Your task to perform on an android device: Go to Reddit.com Image 0: 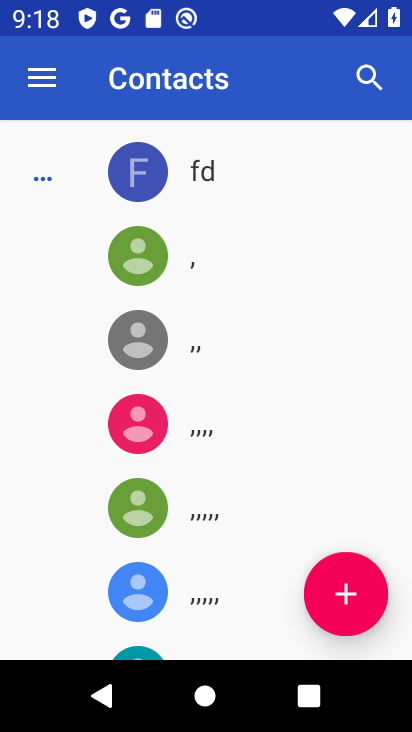
Step 0: press home button
Your task to perform on an android device: Go to Reddit.com Image 1: 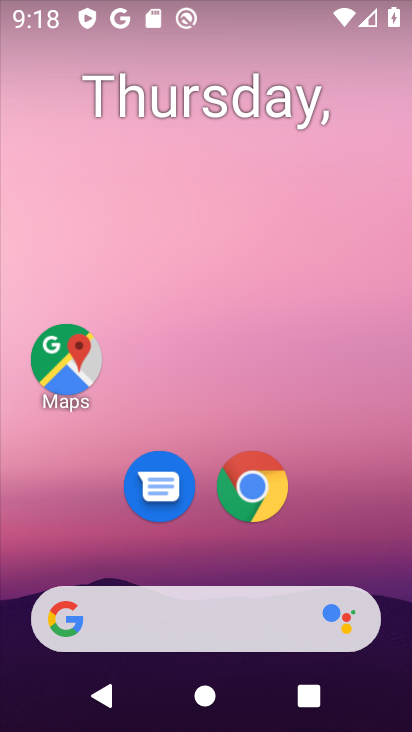
Step 1: click (261, 475)
Your task to perform on an android device: Go to Reddit.com Image 2: 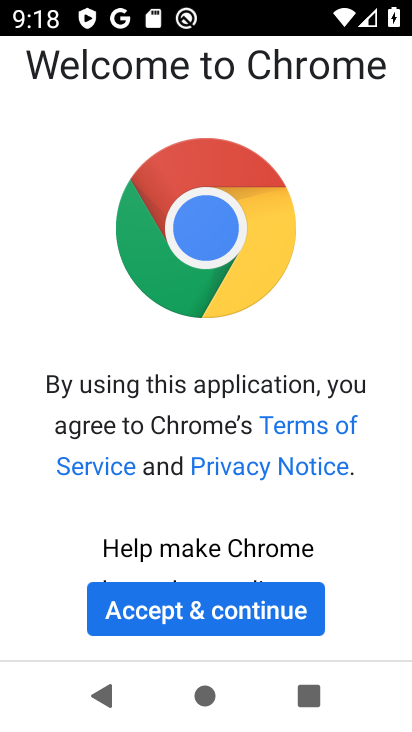
Step 2: click (160, 598)
Your task to perform on an android device: Go to Reddit.com Image 3: 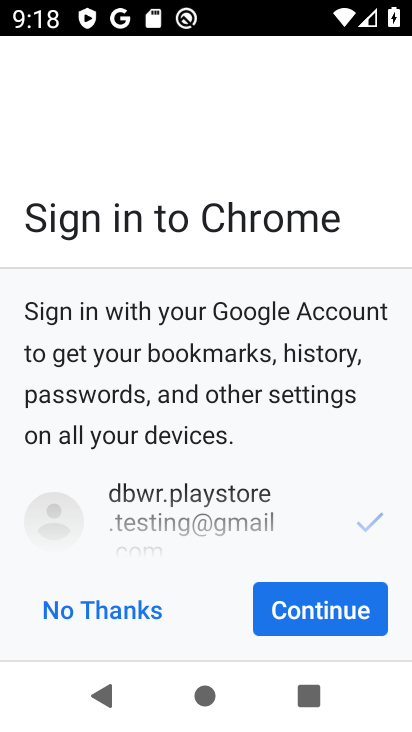
Step 3: click (343, 610)
Your task to perform on an android device: Go to Reddit.com Image 4: 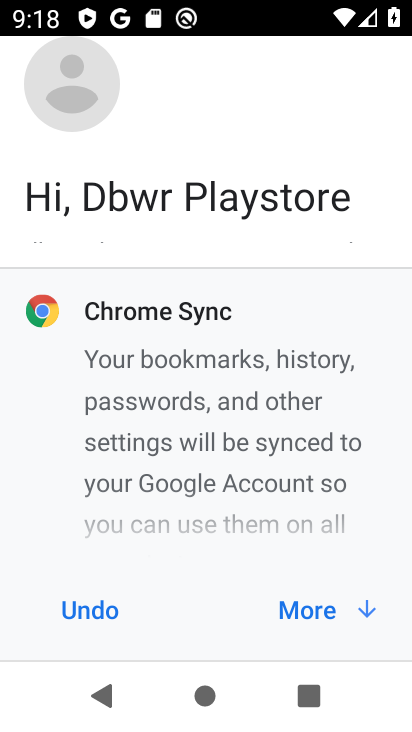
Step 4: click (343, 610)
Your task to perform on an android device: Go to Reddit.com Image 5: 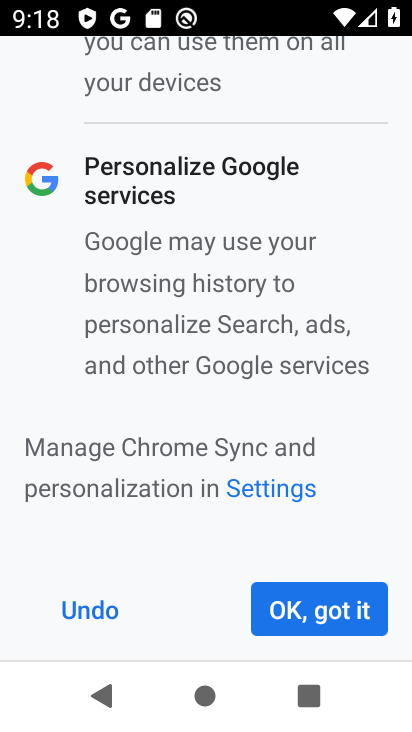
Step 5: click (342, 607)
Your task to perform on an android device: Go to Reddit.com Image 6: 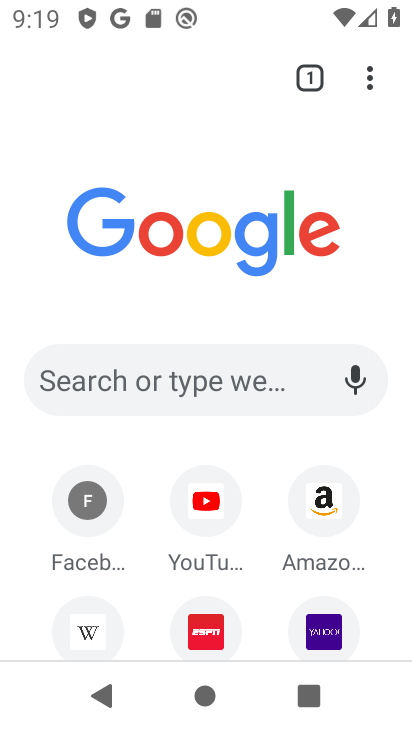
Step 6: click (108, 372)
Your task to perform on an android device: Go to Reddit.com Image 7: 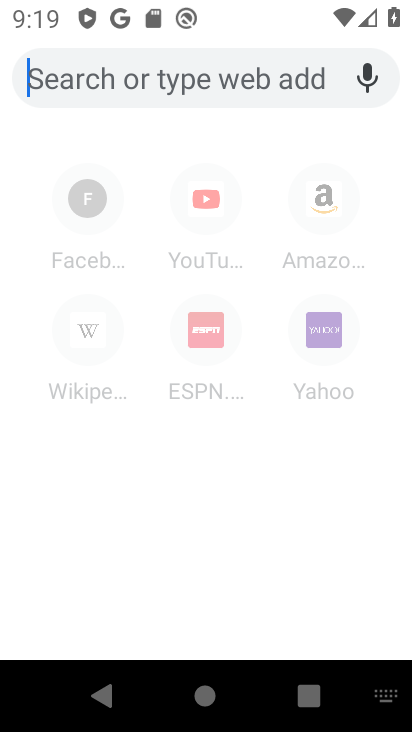
Step 7: type "Reddit.com"
Your task to perform on an android device: Go to Reddit.com Image 8: 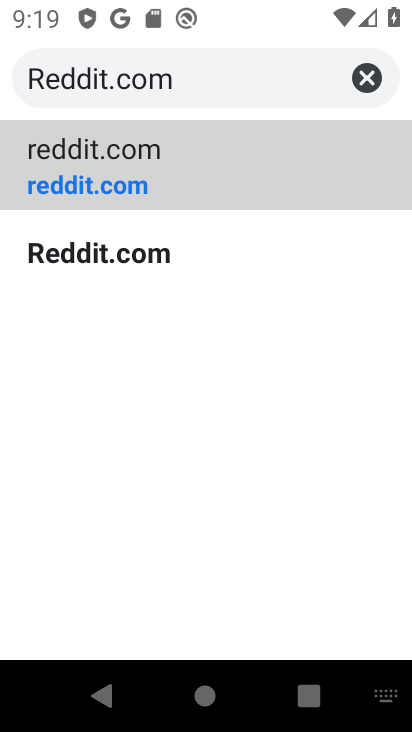
Step 8: click (64, 160)
Your task to perform on an android device: Go to Reddit.com Image 9: 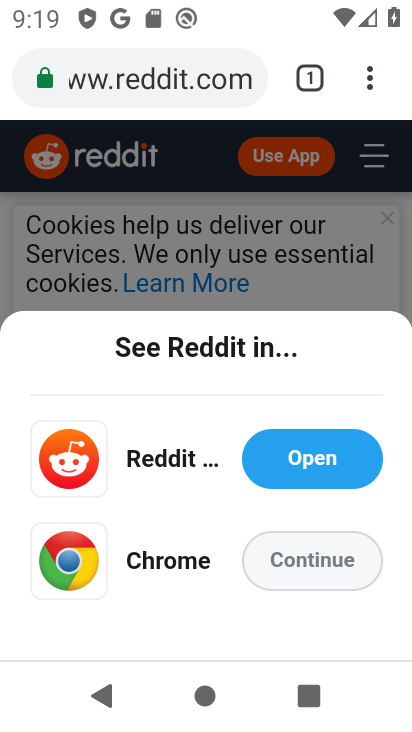
Step 9: task complete